Your task to perform on an android device: Go to privacy settings Image 0: 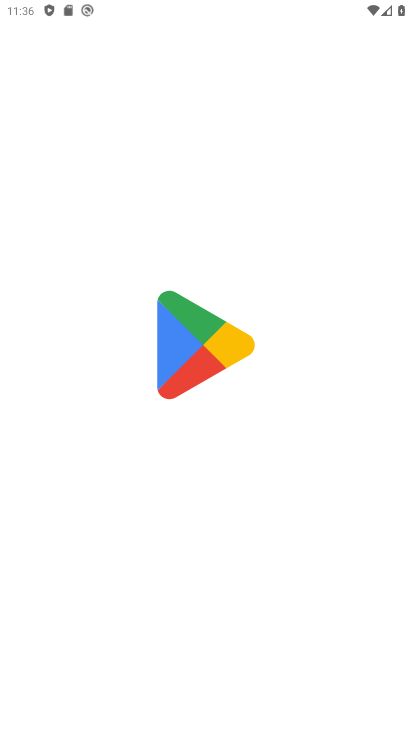
Step 0: press home button
Your task to perform on an android device: Go to privacy settings Image 1: 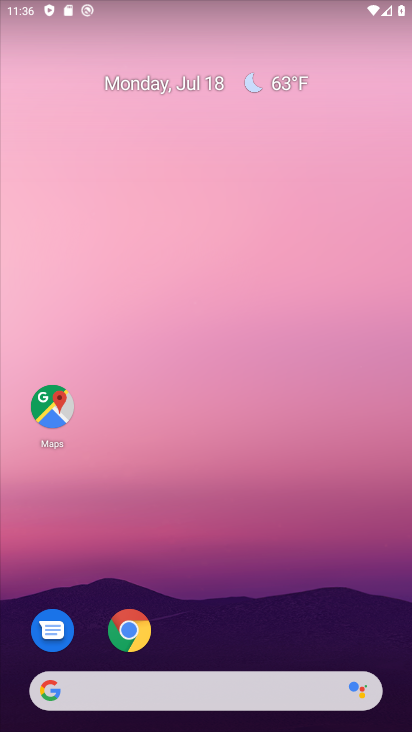
Step 1: click (133, 629)
Your task to perform on an android device: Go to privacy settings Image 2: 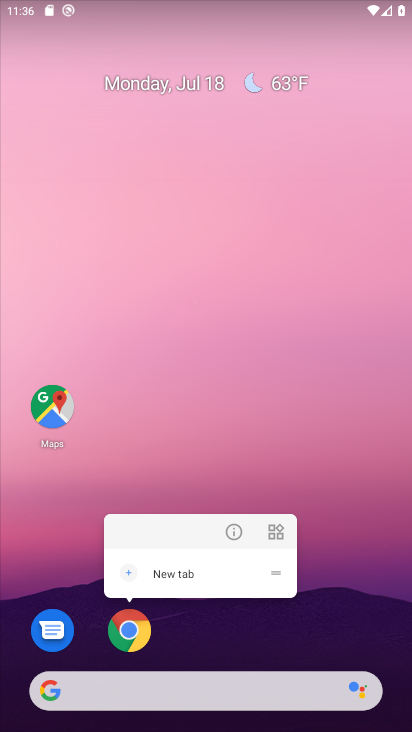
Step 2: click (133, 629)
Your task to perform on an android device: Go to privacy settings Image 3: 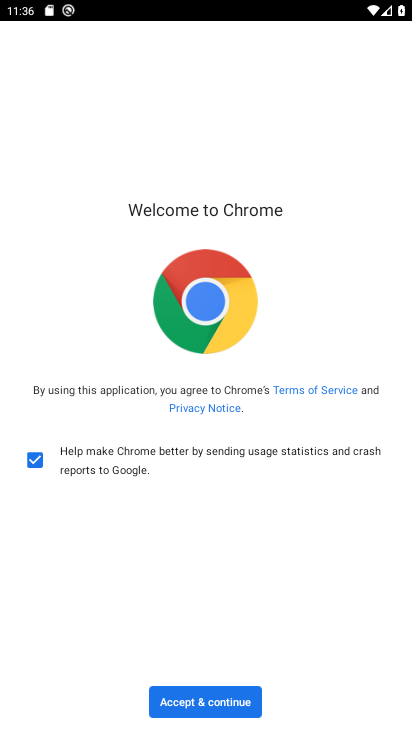
Step 3: click (211, 704)
Your task to perform on an android device: Go to privacy settings Image 4: 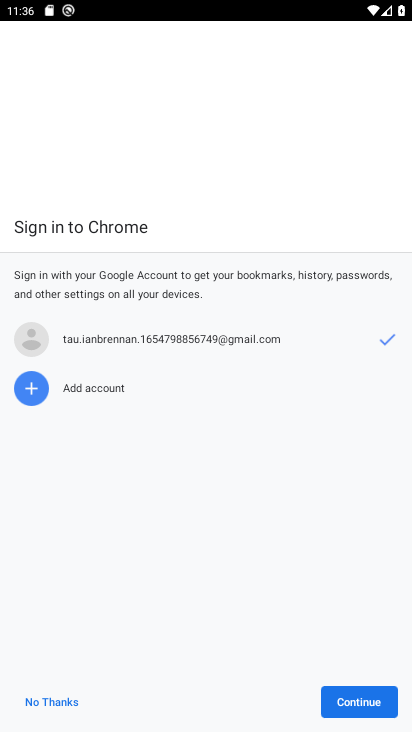
Step 4: click (336, 707)
Your task to perform on an android device: Go to privacy settings Image 5: 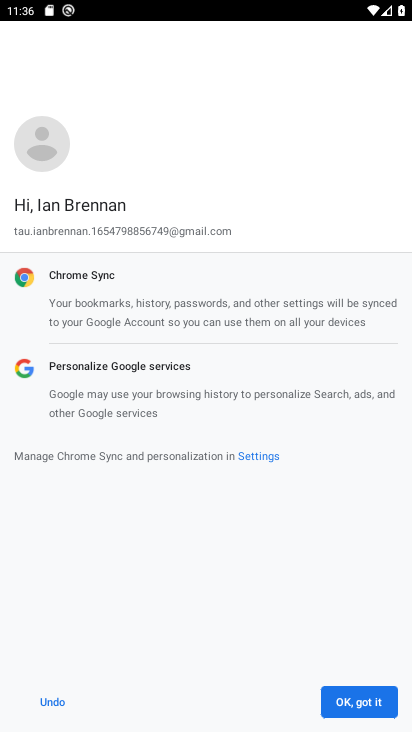
Step 5: click (336, 707)
Your task to perform on an android device: Go to privacy settings Image 6: 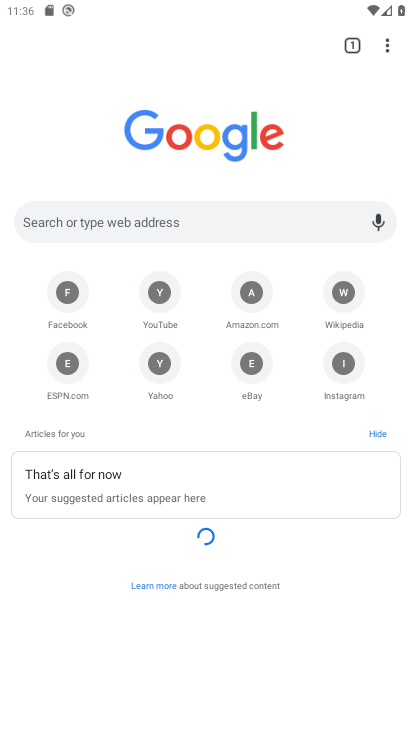
Step 6: click (386, 45)
Your task to perform on an android device: Go to privacy settings Image 7: 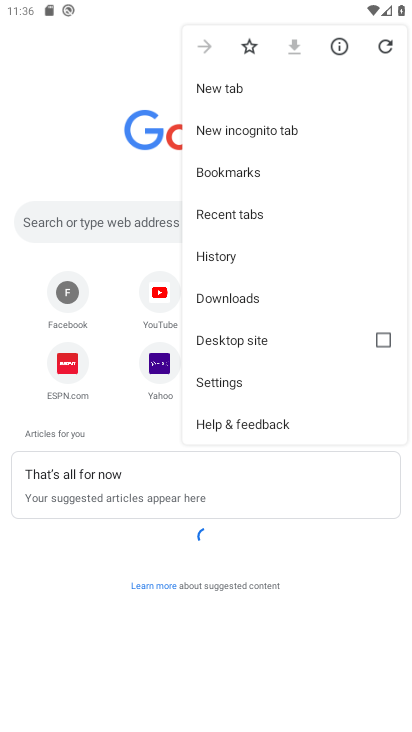
Step 7: click (227, 383)
Your task to perform on an android device: Go to privacy settings Image 8: 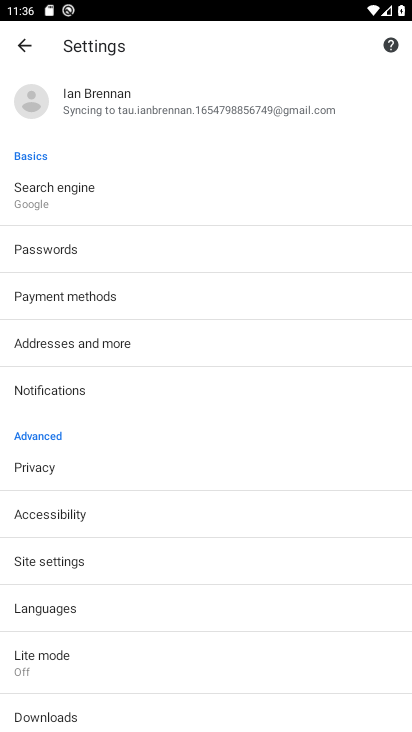
Step 8: click (53, 468)
Your task to perform on an android device: Go to privacy settings Image 9: 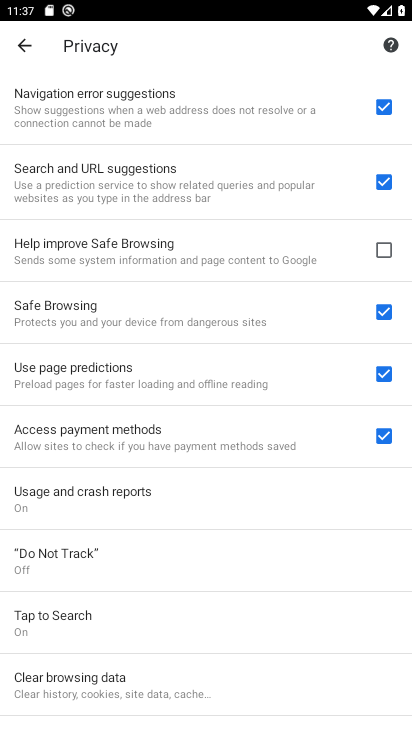
Step 9: task complete